Your task to perform on an android device: Go to accessibility settings Image 0: 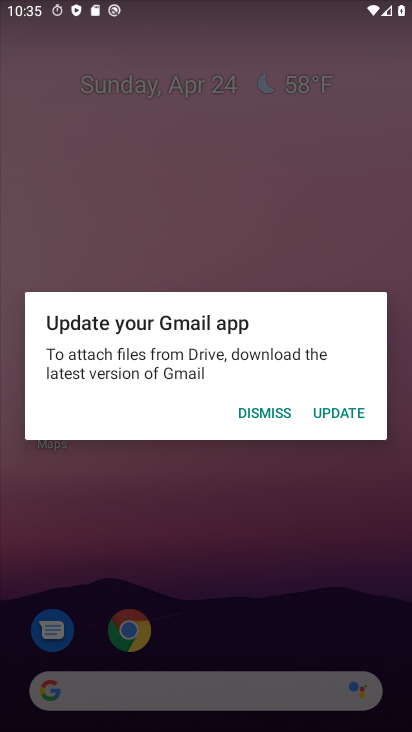
Step 0: press back button
Your task to perform on an android device: Go to accessibility settings Image 1: 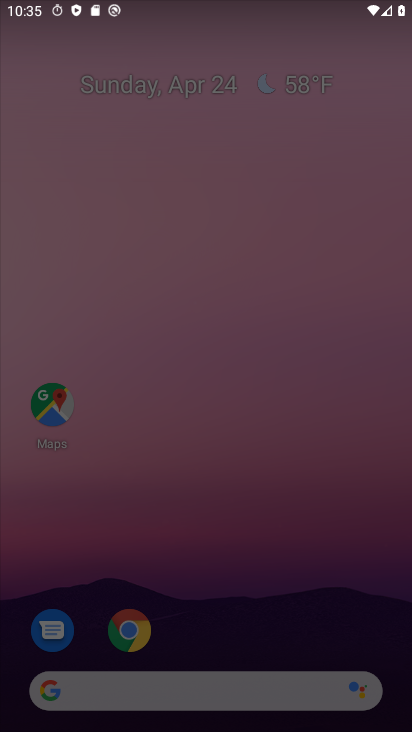
Step 1: press home button
Your task to perform on an android device: Go to accessibility settings Image 2: 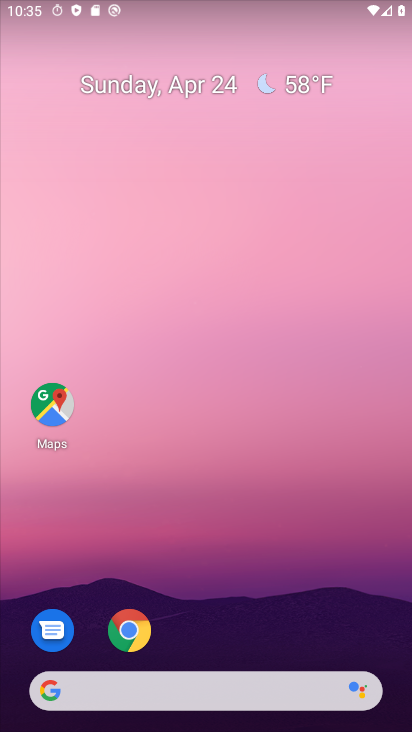
Step 2: drag from (205, 679) to (253, 410)
Your task to perform on an android device: Go to accessibility settings Image 3: 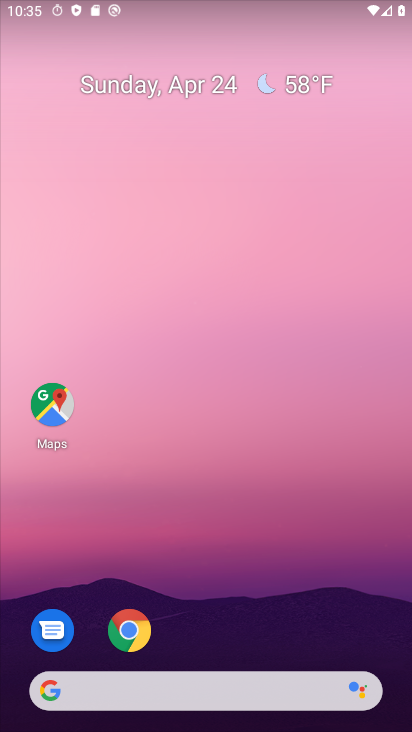
Step 3: drag from (233, 558) to (243, 386)
Your task to perform on an android device: Go to accessibility settings Image 4: 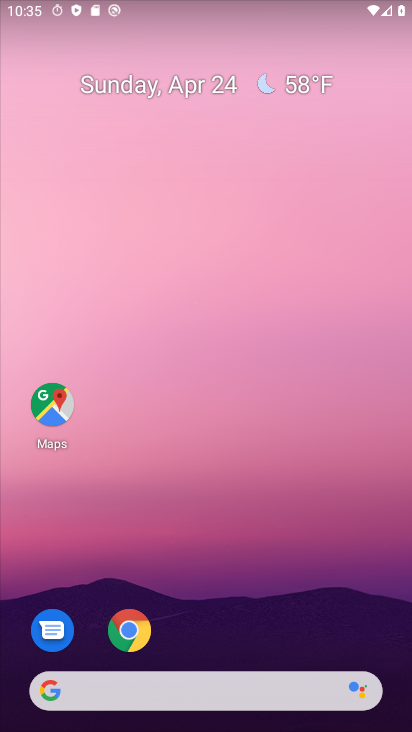
Step 4: drag from (241, 614) to (254, 291)
Your task to perform on an android device: Go to accessibility settings Image 5: 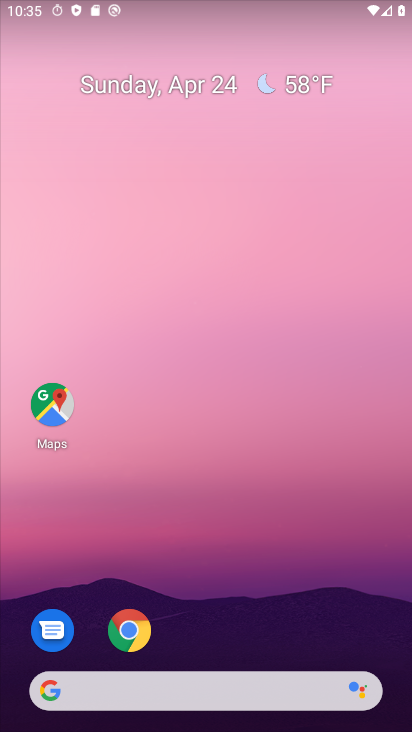
Step 5: drag from (248, 631) to (271, 140)
Your task to perform on an android device: Go to accessibility settings Image 6: 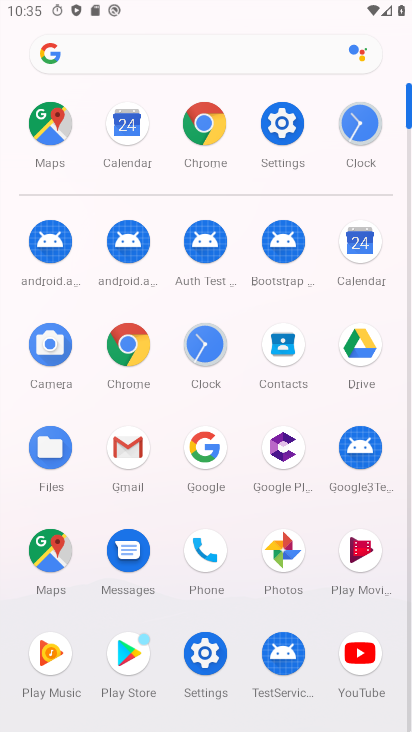
Step 6: click (273, 135)
Your task to perform on an android device: Go to accessibility settings Image 7: 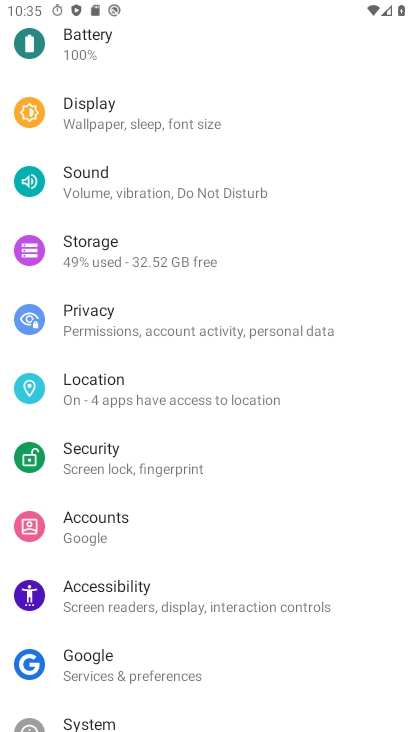
Step 7: drag from (214, 561) to (231, 327)
Your task to perform on an android device: Go to accessibility settings Image 8: 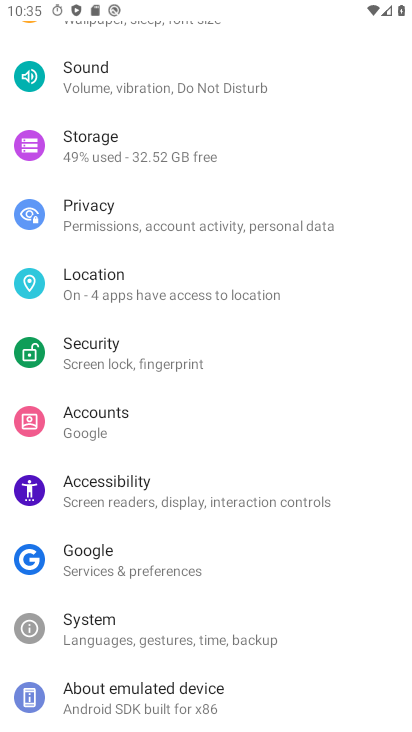
Step 8: click (212, 490)
Your task to perform on an android device: Go to accessibility settings Image 9: 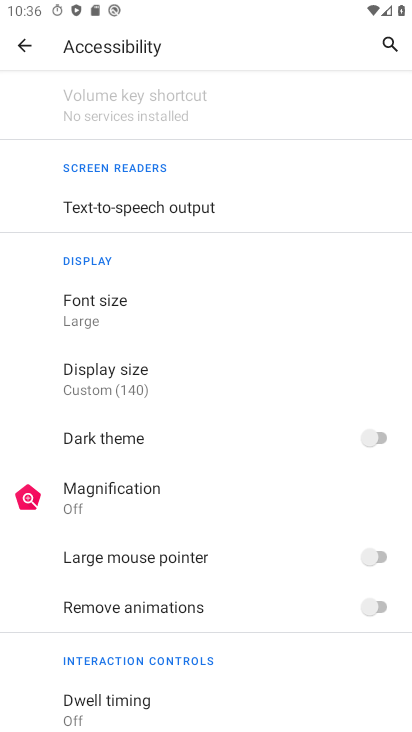
Step 9: task complete